Your task to perform on an android device: Search for sushi restaurants on Maps Image 0: 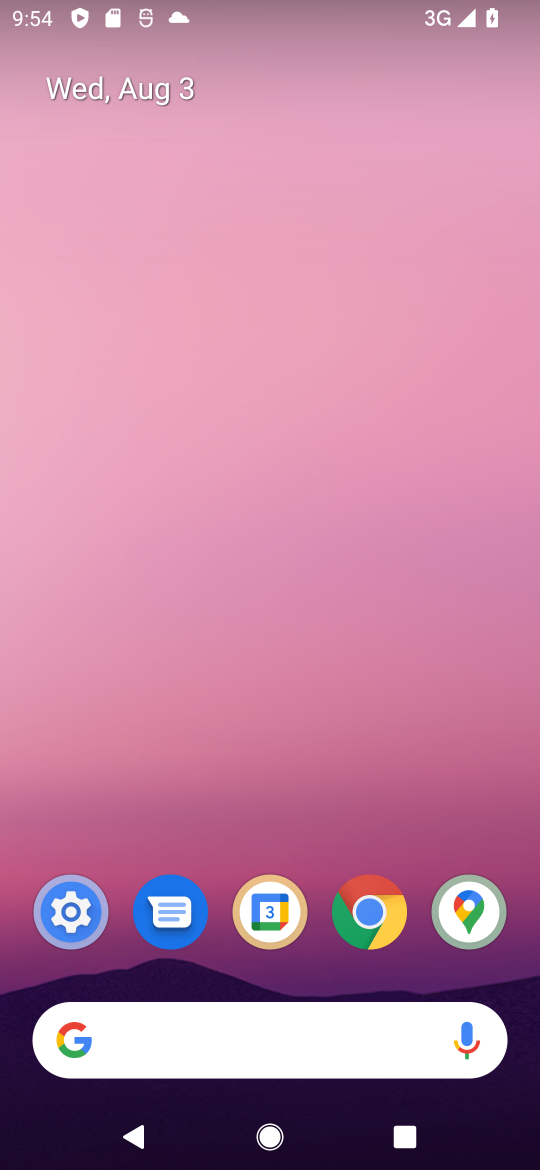
Step 0: drag from (283, 812) to (207, 102)
Your task to perform on an android device: Search for sushi restaurants on Maps Image 1: 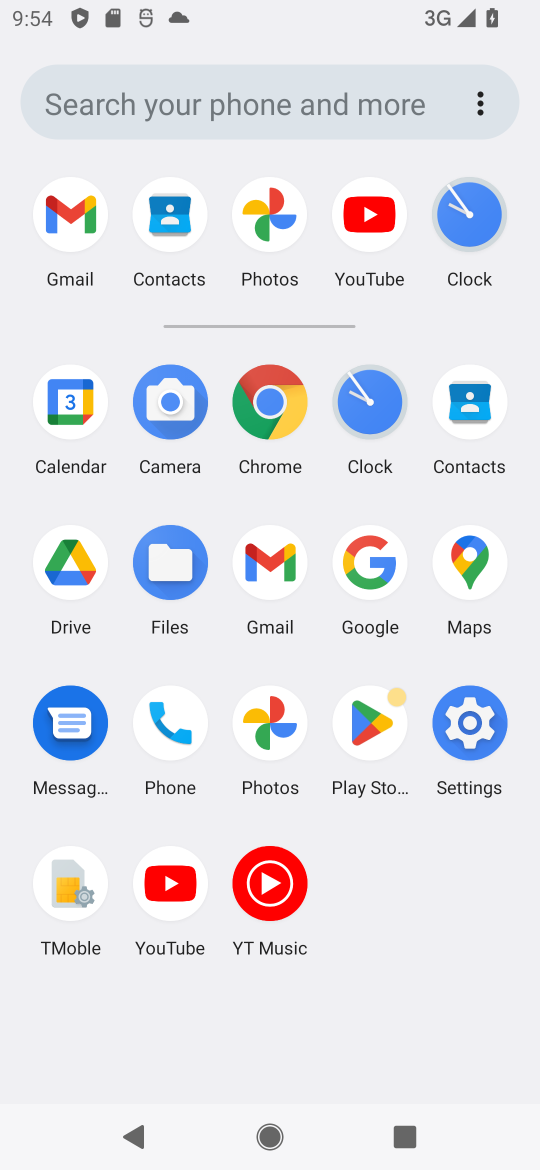
Step 1: click (483, 579)
Your task to perform on an android device: Search for sushi restaurants on Maps Image 2: 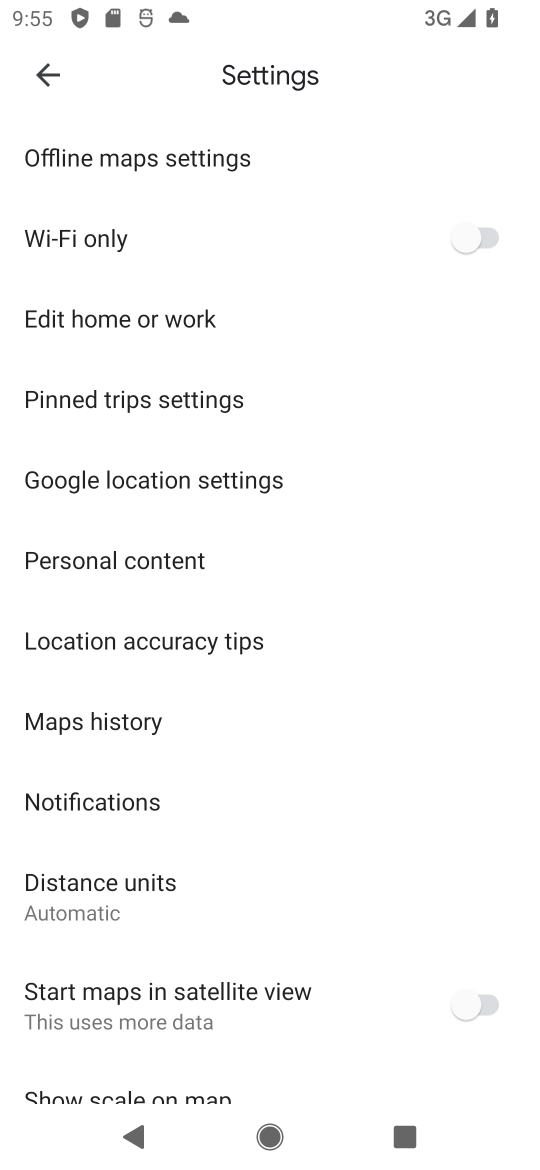
Step 2: click (65, 98)
Your task to perform on an android device: Search for sushi restaurants on Maps Image 3: 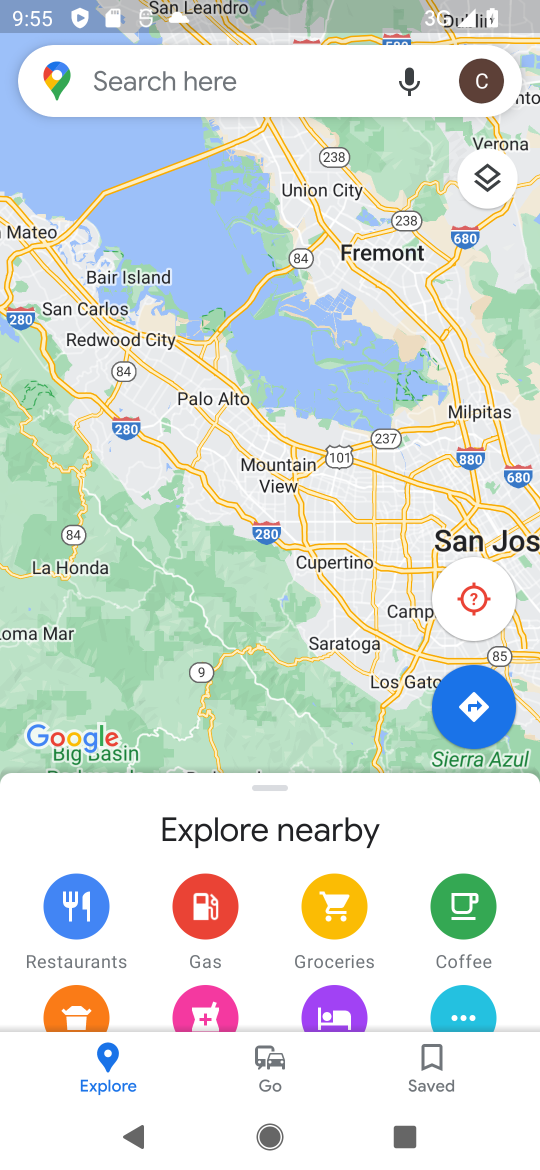
Step 3: click (128, 102)
Your task to perform on an android device: Search for sushi restaurants on Maps Image 4: 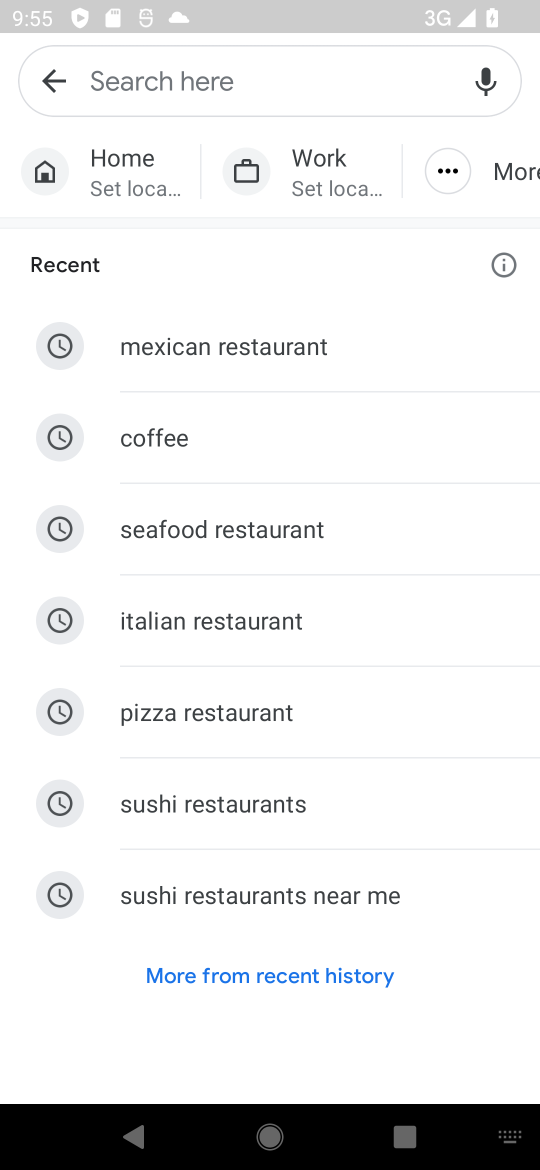
Step 4: click (215, 803)
Your task to perform on an android device: Search for sushi restaurants on Maps Image 5: 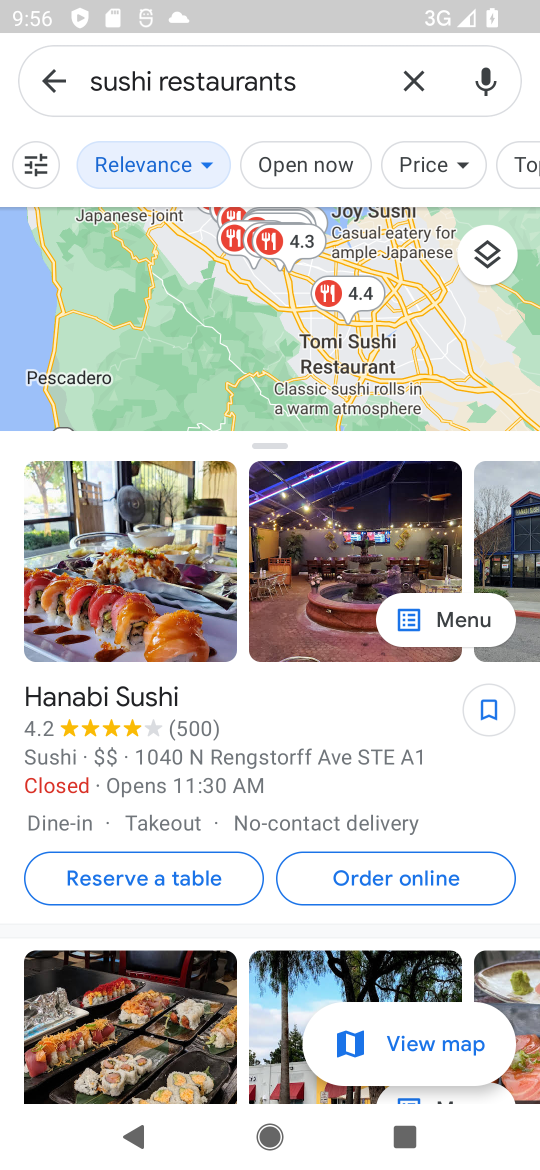
Step 5: task complete